Your task to perform on an android device: turn on translation in the chrome app Image 0: 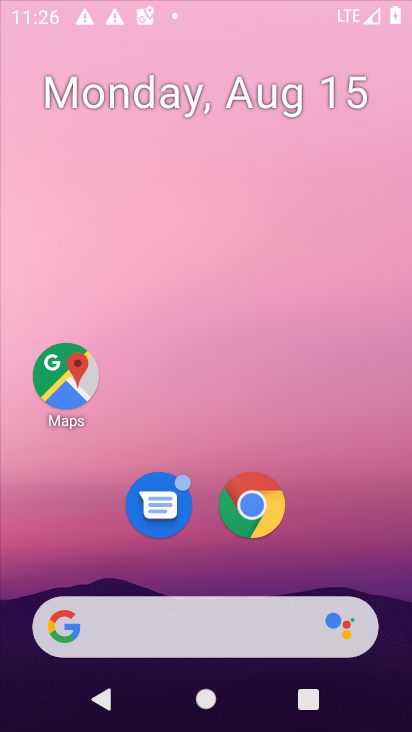
Step 0: click (201, 103)
Your task to perform on an android device: turn on translation in the chrome app Image 1: 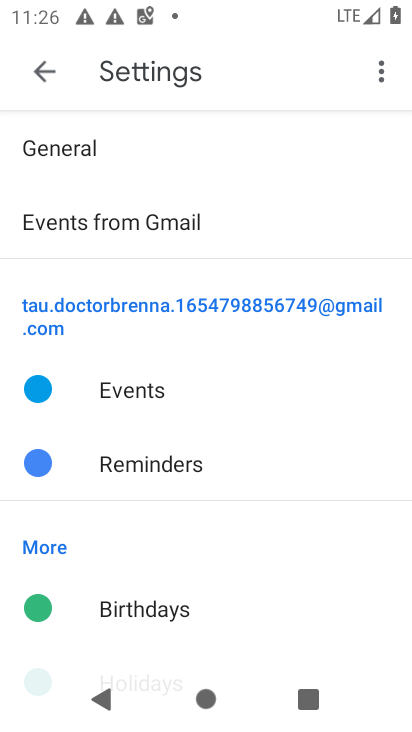
Step 1: press home button
Your task to perform on an android device: turn on translation in the chrome app Image 2: 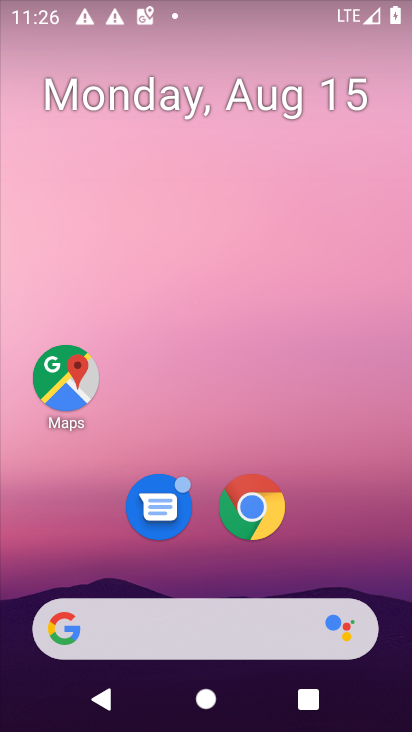
Step 2: click (253, 505)
Your task to perform on an android device: turn on translation in the chrome app Image 3: 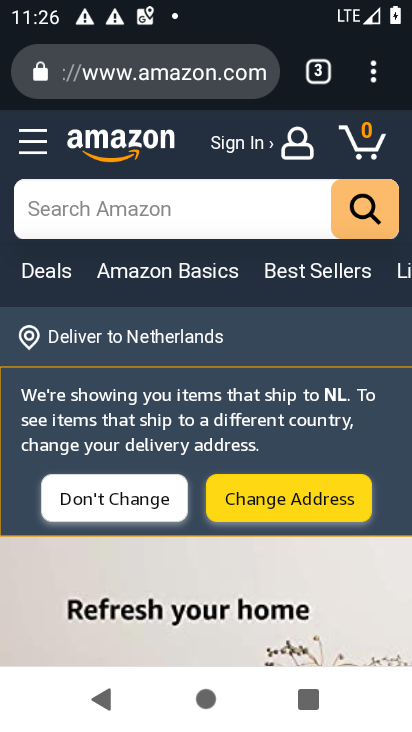
Step 3: click (373, 75)
Your task to perform on an android device: turn on translation in the chrome app Image 4: 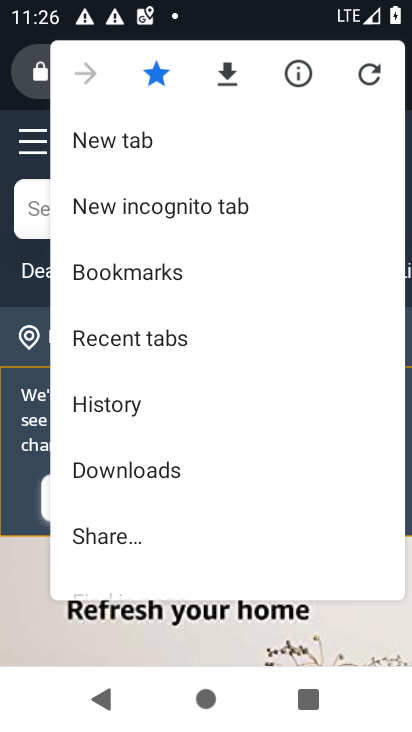
Step 4: drag from (254, 486) to (240, 205)
Your task to perform on an android device: turn on translation in the chrome app Image 5: 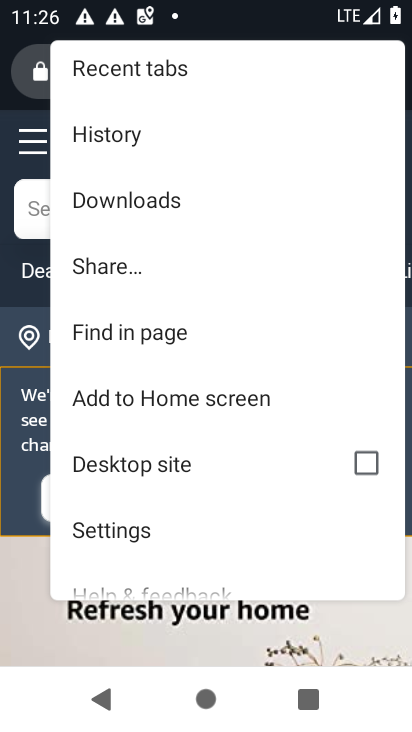
Step 5: click (110, 526)
Your task to perform on an android device: turn on translation in the chrome app Image 6: 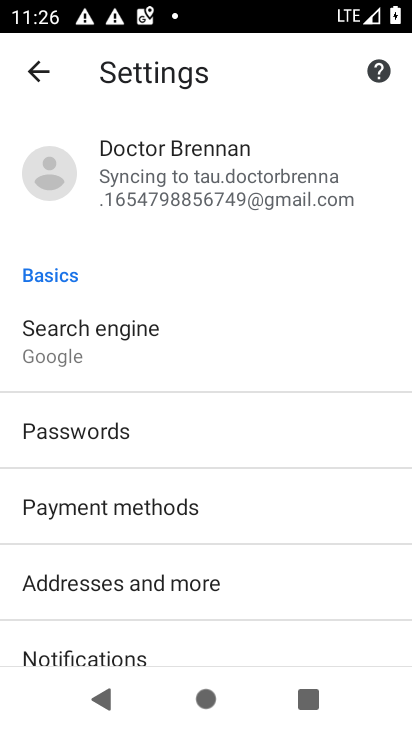
Step 6: drag from (253, 635) to (220, 290)
Your task to perform on an android device: turn on translation in the chrome app Image 7: 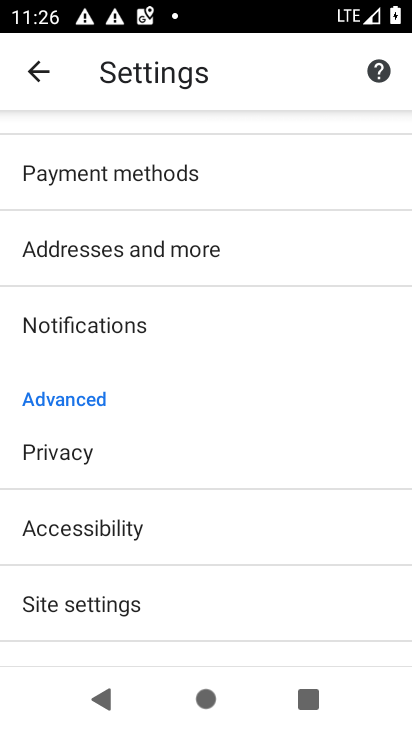
Step 7: drag from (233, 570) to (201, 220)
Your task to perform on an android device: turn on translation in the chrome app Image 8: 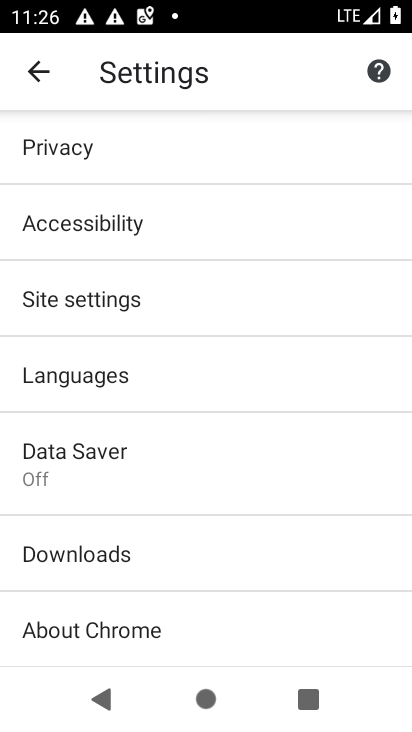
Step 8: click (87, 368)
Your task to perform on an android device: turn on translation in the chrome app Image 9: 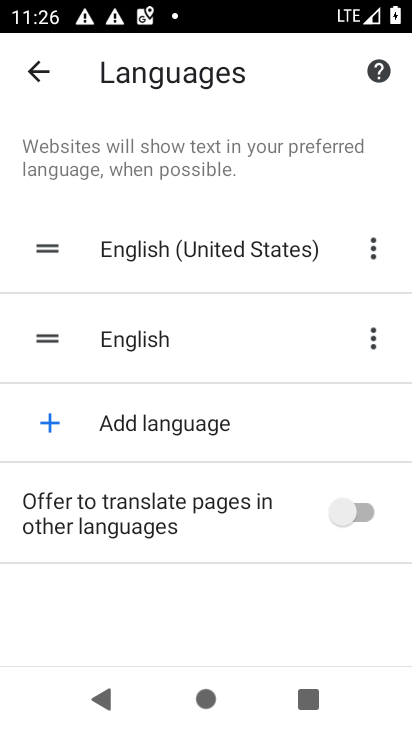
Step 9: click (342, 514)
Your task to perform on an android device: turn on translation in the chrome app Image 10: 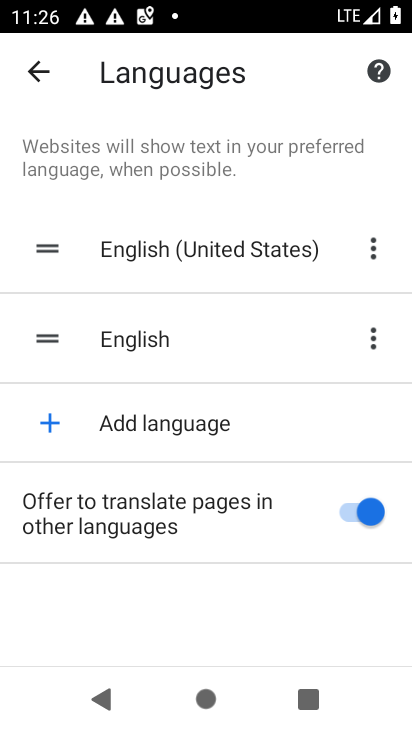
Step 10: task complete